Your task to perform on an android device: Open a new window in the chrome app Image 0: 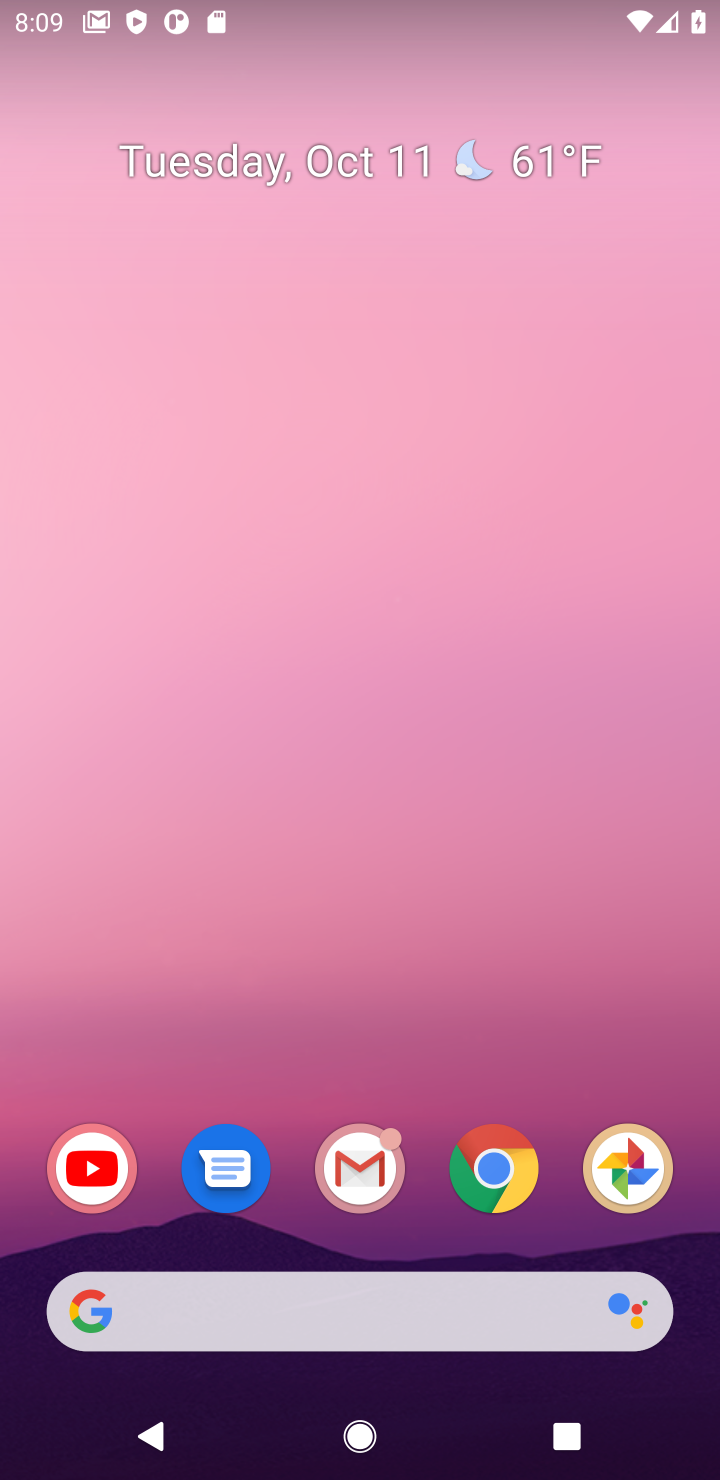
Step 0: drag from (415, 1096) to (476, 599)
Your task to perform on an android device: Open a new window in the chrome app Image 1: 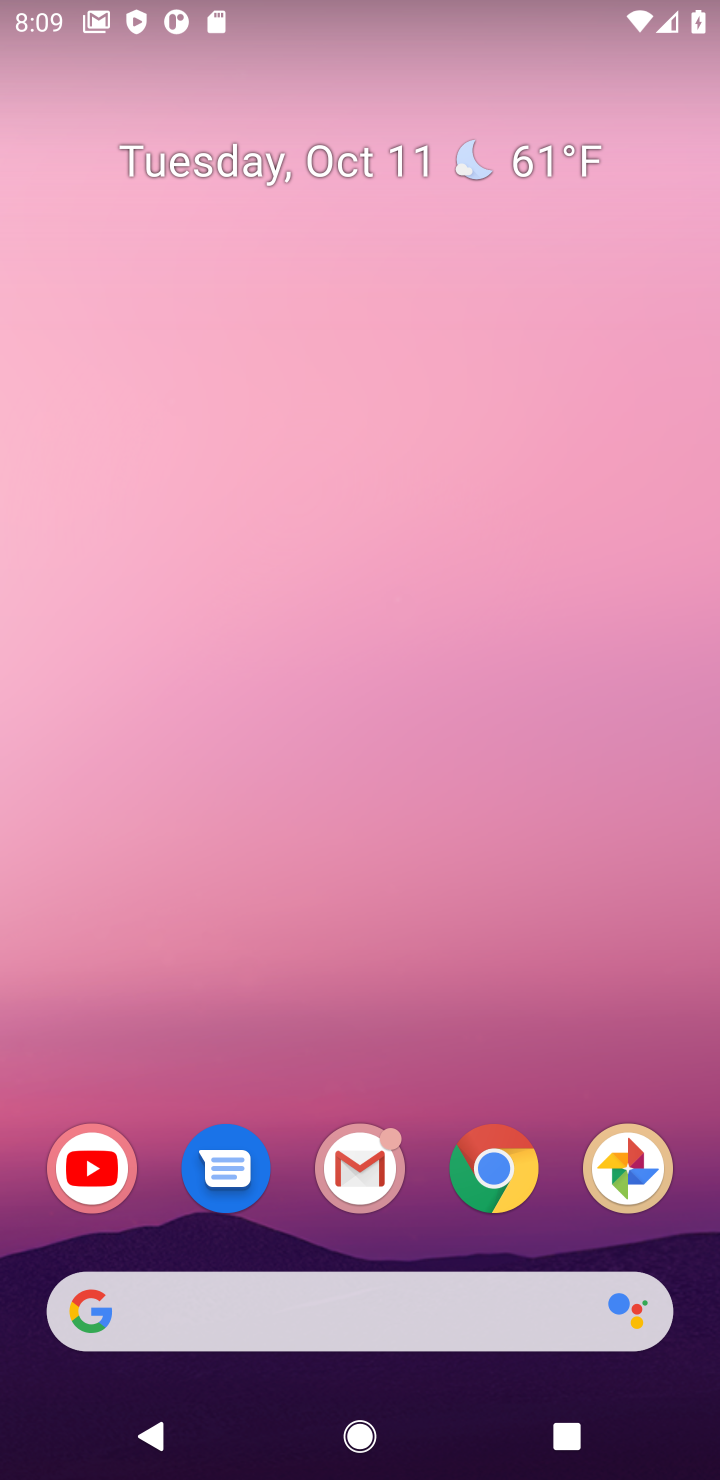
Step 1: click (498, 1171)
Your task to perform on an android device: Open a new window in the chrome app Image 2: 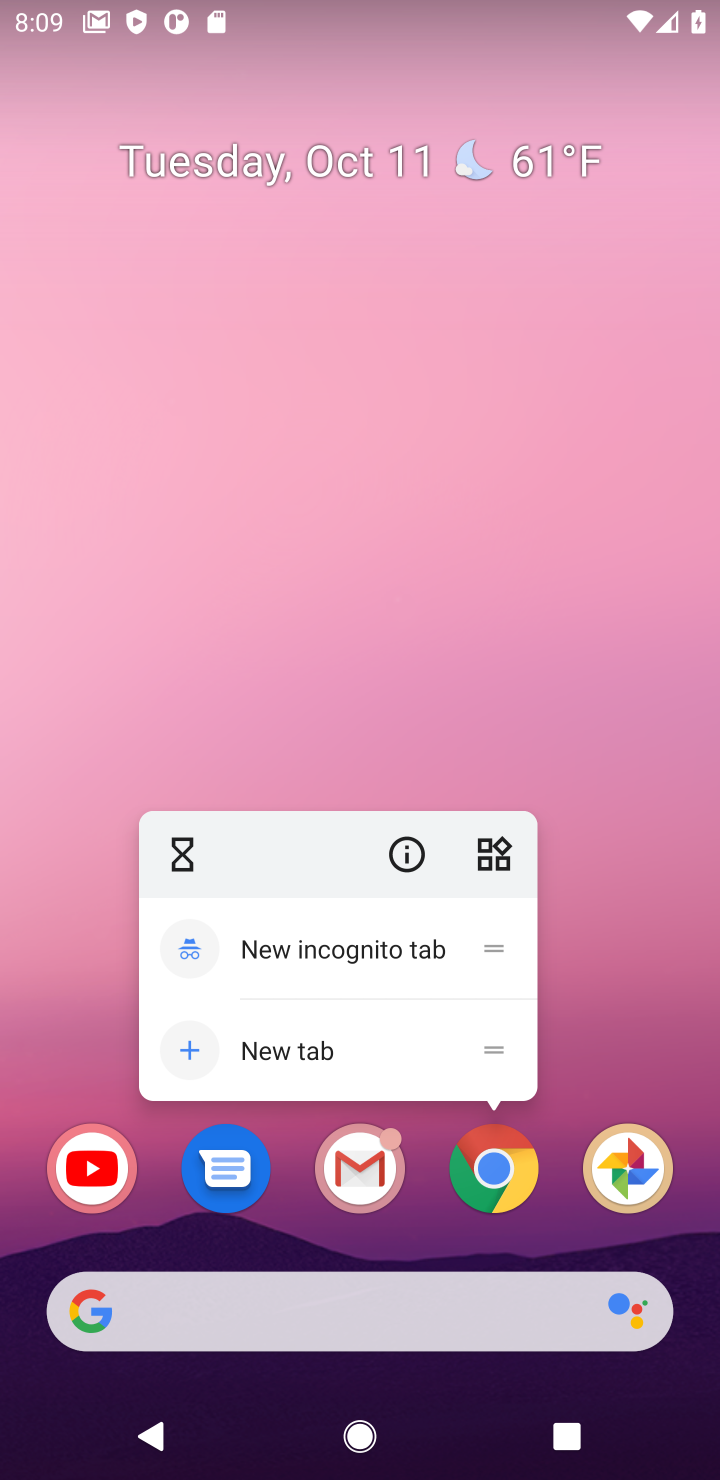
Step 2: click (513, 1192)
Your task to perform on an android device: Open a new window in the chrome app Image 3: 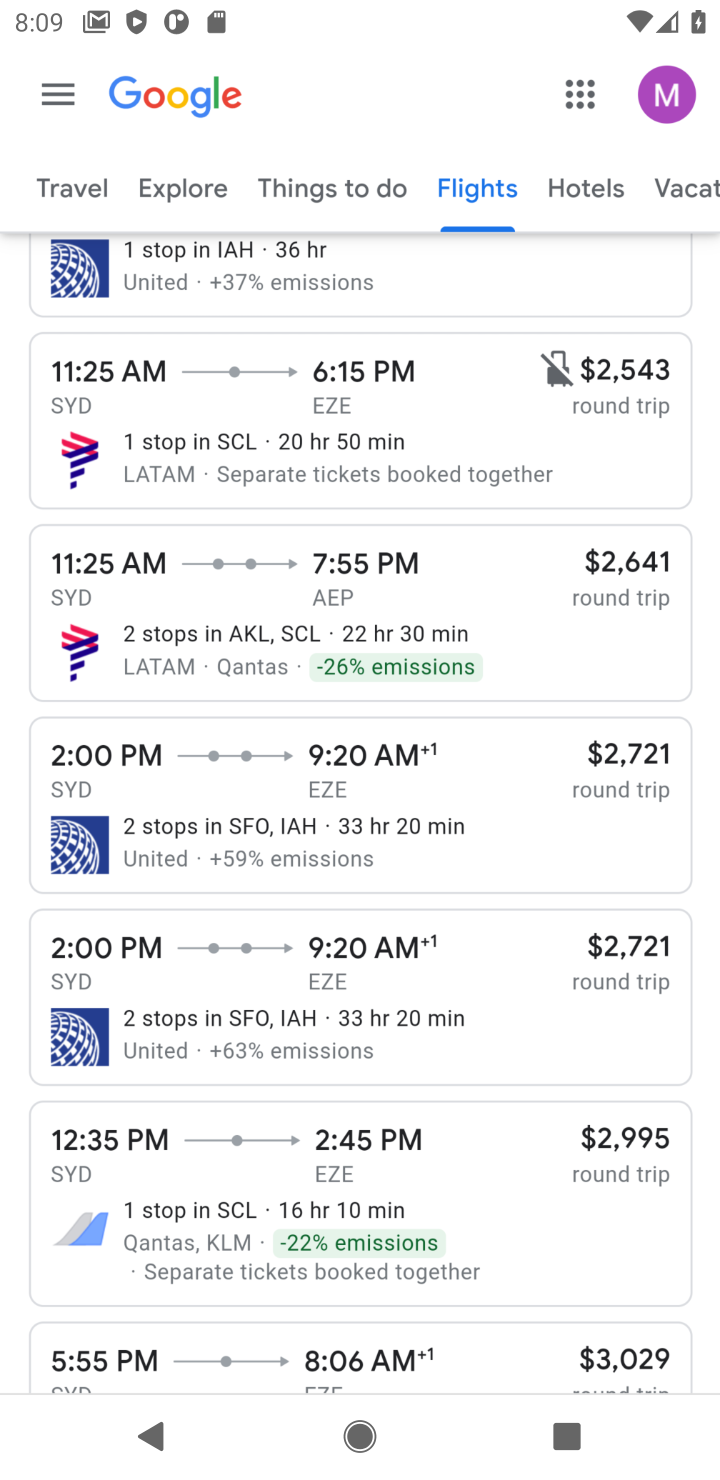
Step 3: press back button
Your task to perform on an android device: Open a new window in the chrome app Image 4: 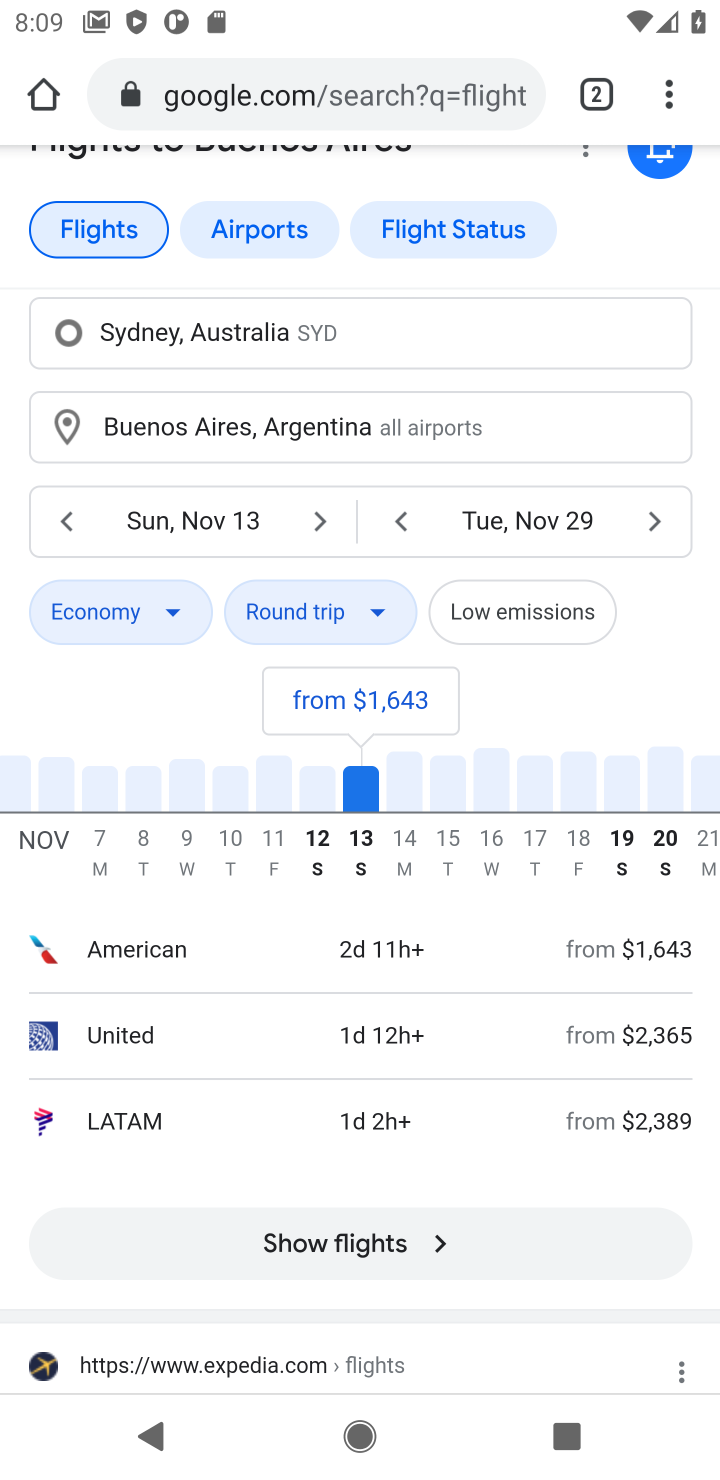
Step 4: click (342, 90)
Your task to perform on an android device: Open a new window in the chrome app Image 5: 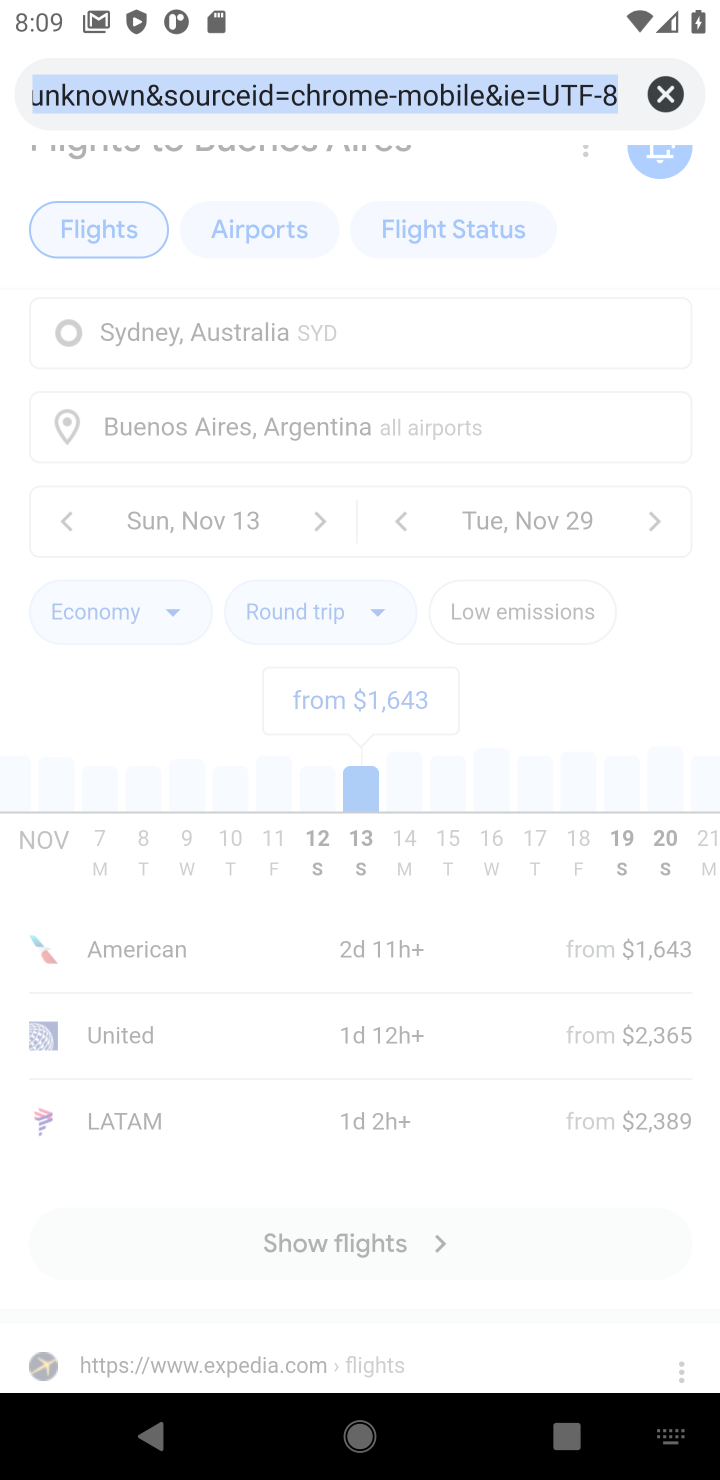
Step 5: click (666, 91)
Your task to perform on an android device: Open a new window in the chrome app Image 6: 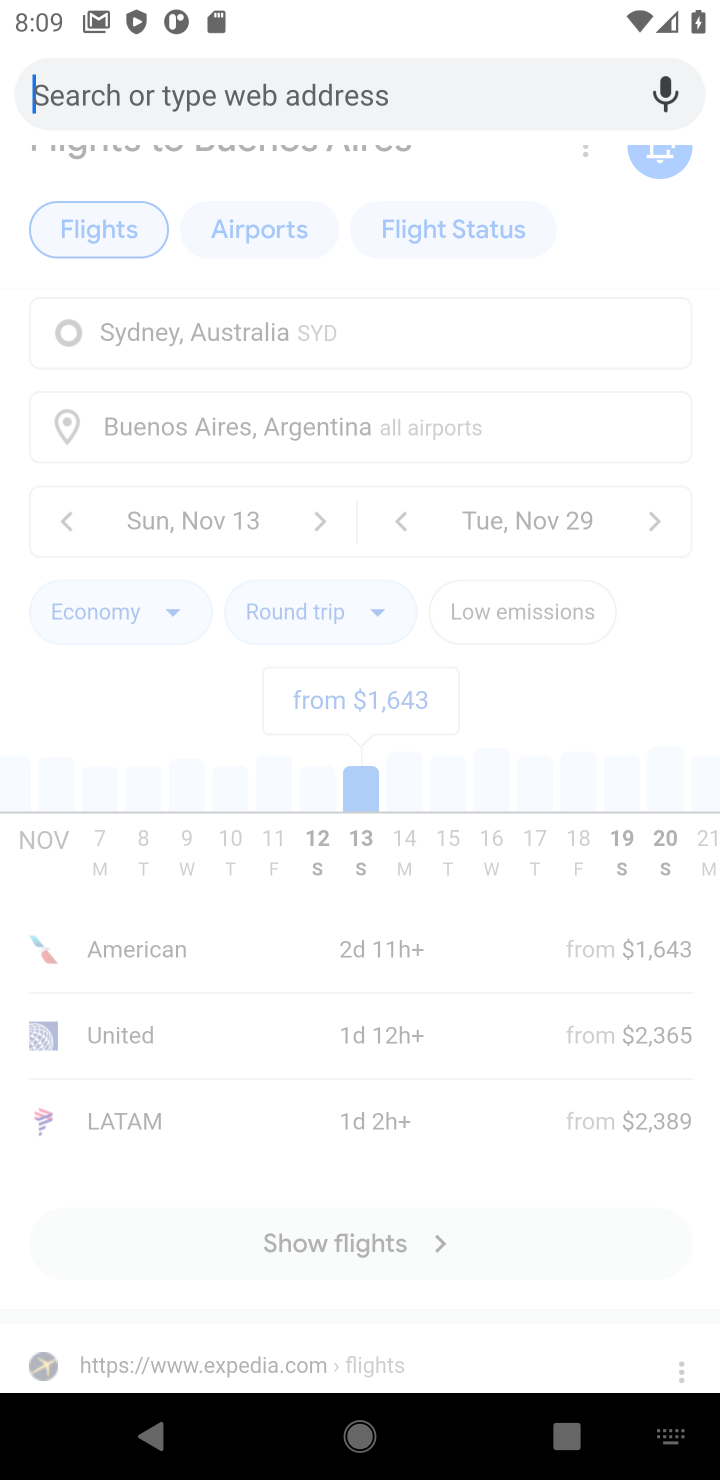
Step 6: press back button
Your task to perform on an android device: Open a new window in the chrome app Image 7: 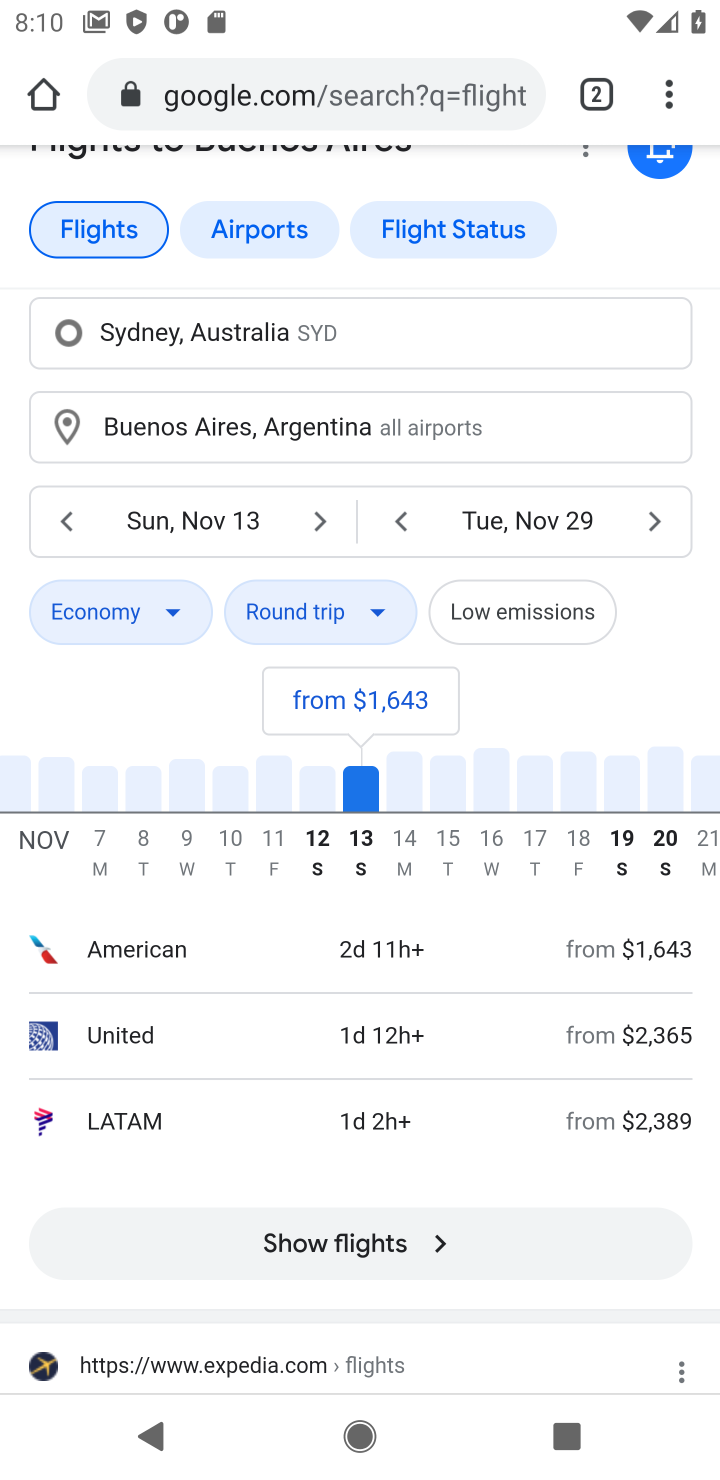
Step 7: click (375, 95)
Your task to perform on an android device: Open a new window in the chrome app Image 8: 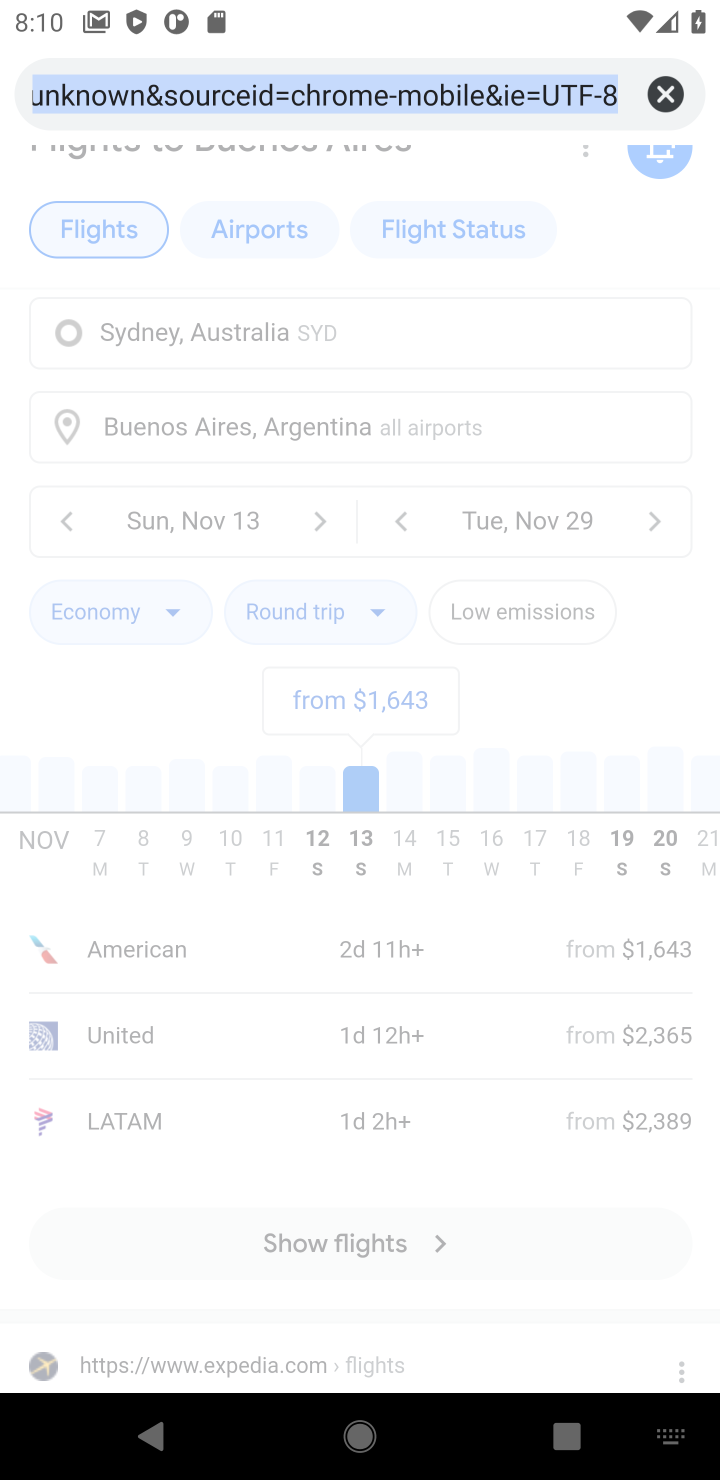
Step 8: click (668, 95)
Your task to perform on an android device: Open a new window in the chrome app Image 9: 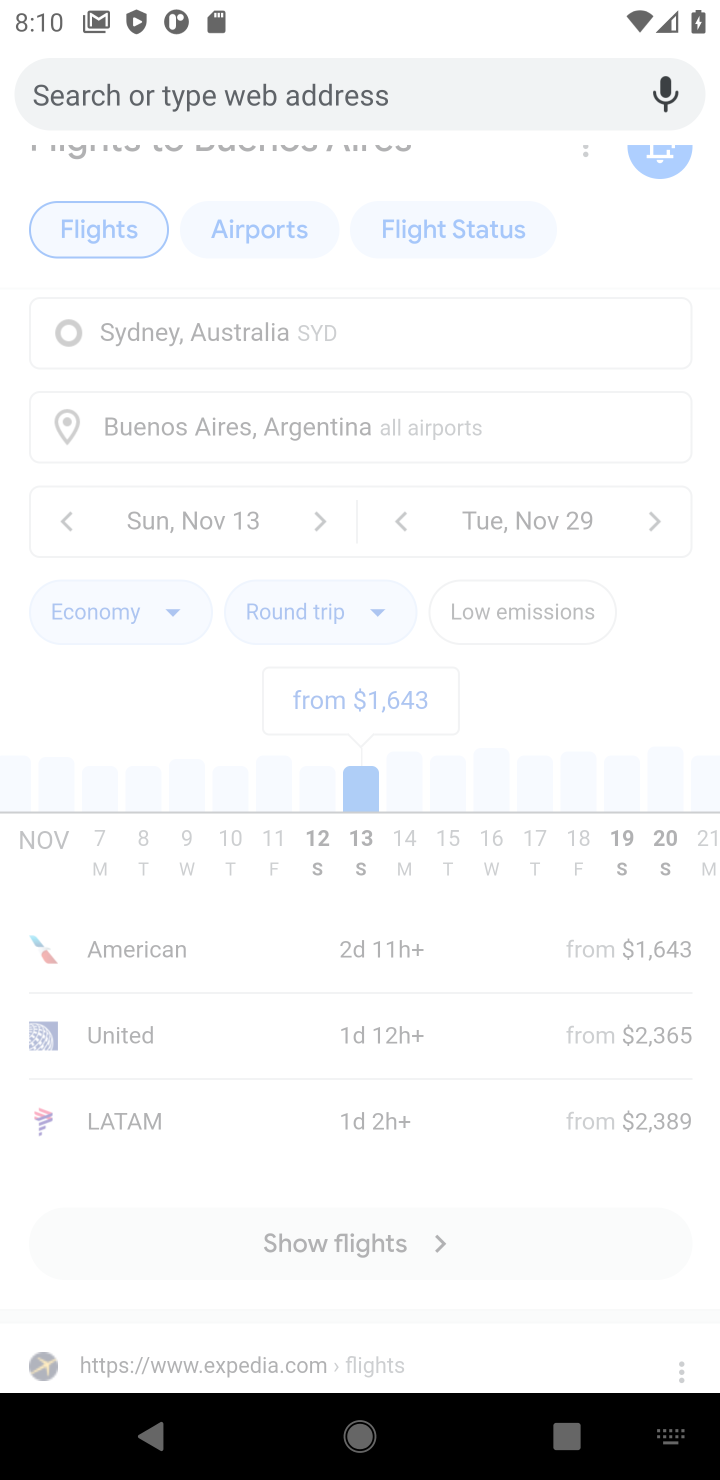
Step 9: type "chrome app"
Your task to perform on an android device: Open a new window in the chrome app Image 10: 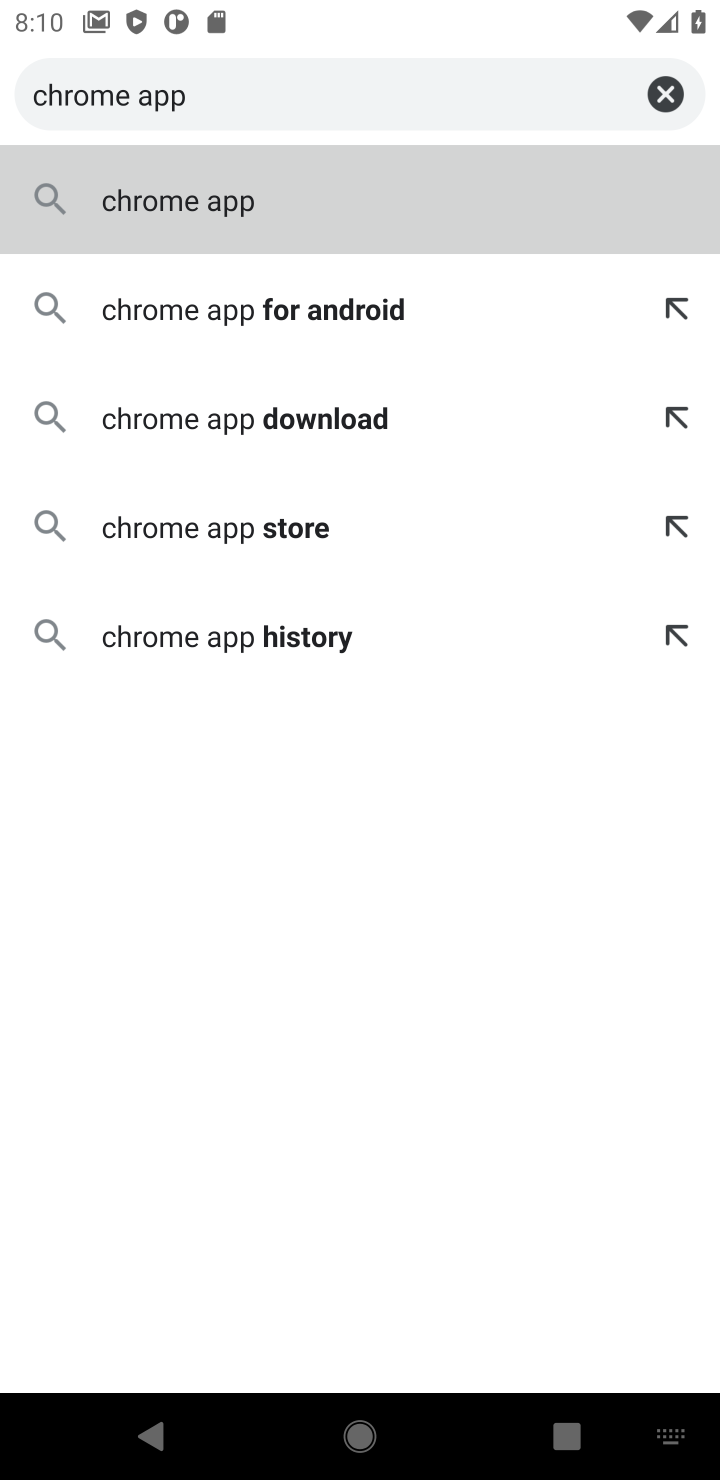
Step 10: type ""
Your task to perform on an android device: Open a new window in the chrome app Image 11: 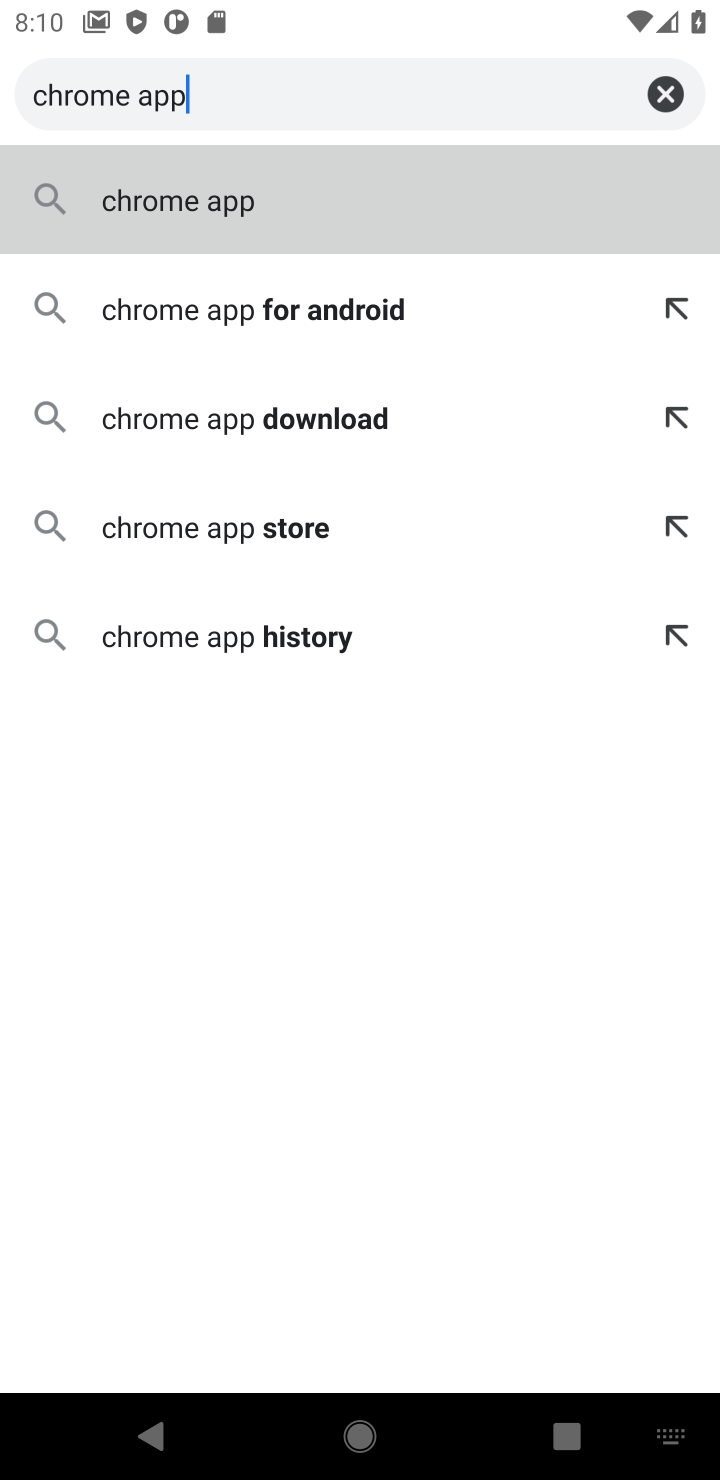
Step 11: drag from (708, 135) to (184, 210)
Your task to perform on an android device: Open a new window in the chrome app Image 12: 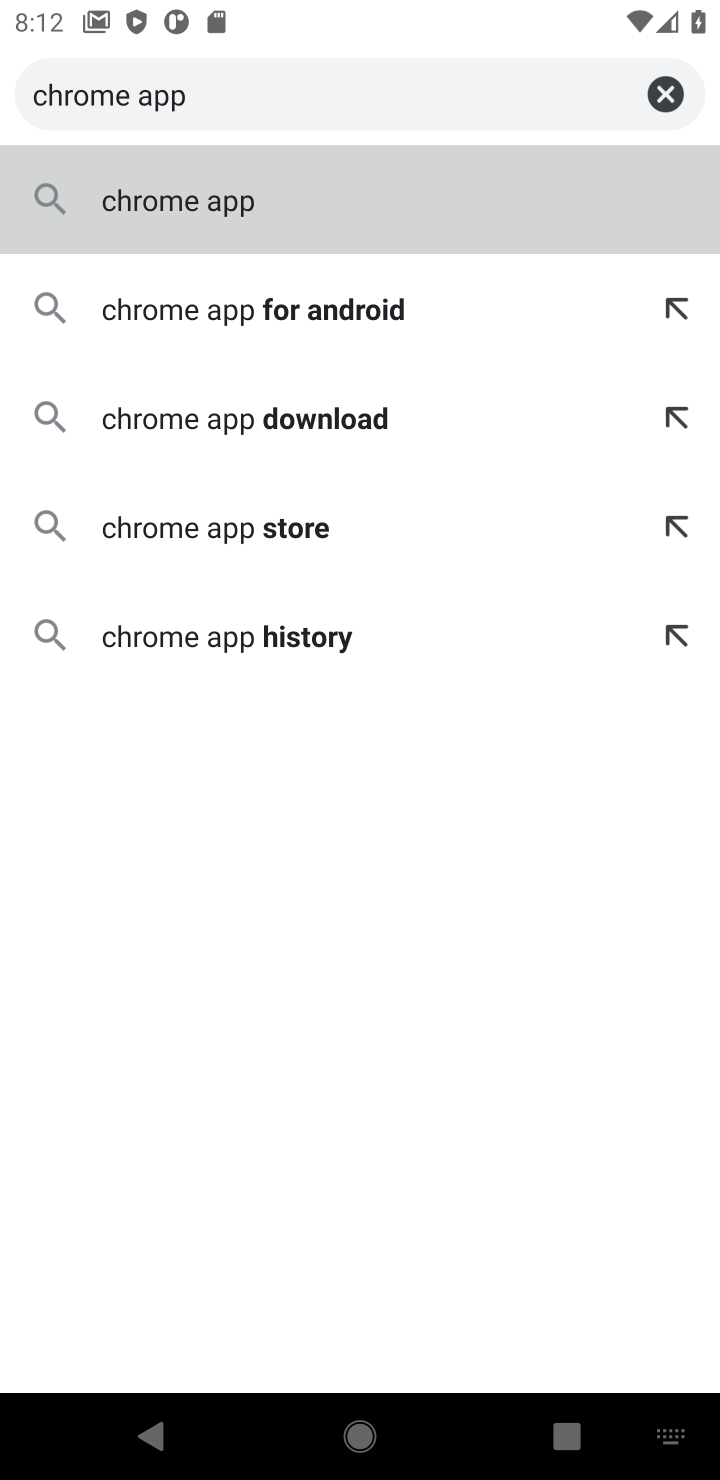
Step 12: click (204, 199)
Your task to perform on an android device: Open a new window in the chrome app Image 13: 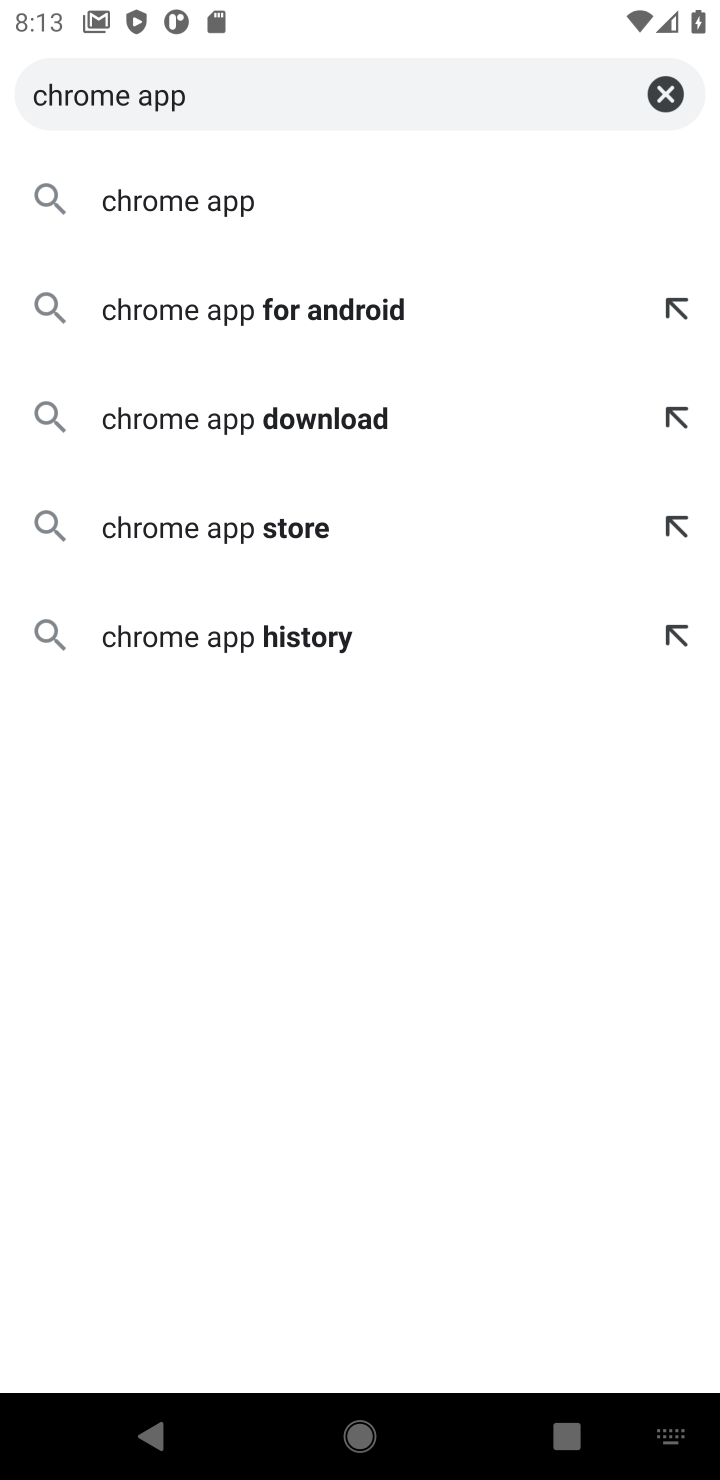
Step 13: click (238, 211)
Your task to perform on an android device: Open a new window in the chrome app Image 14: 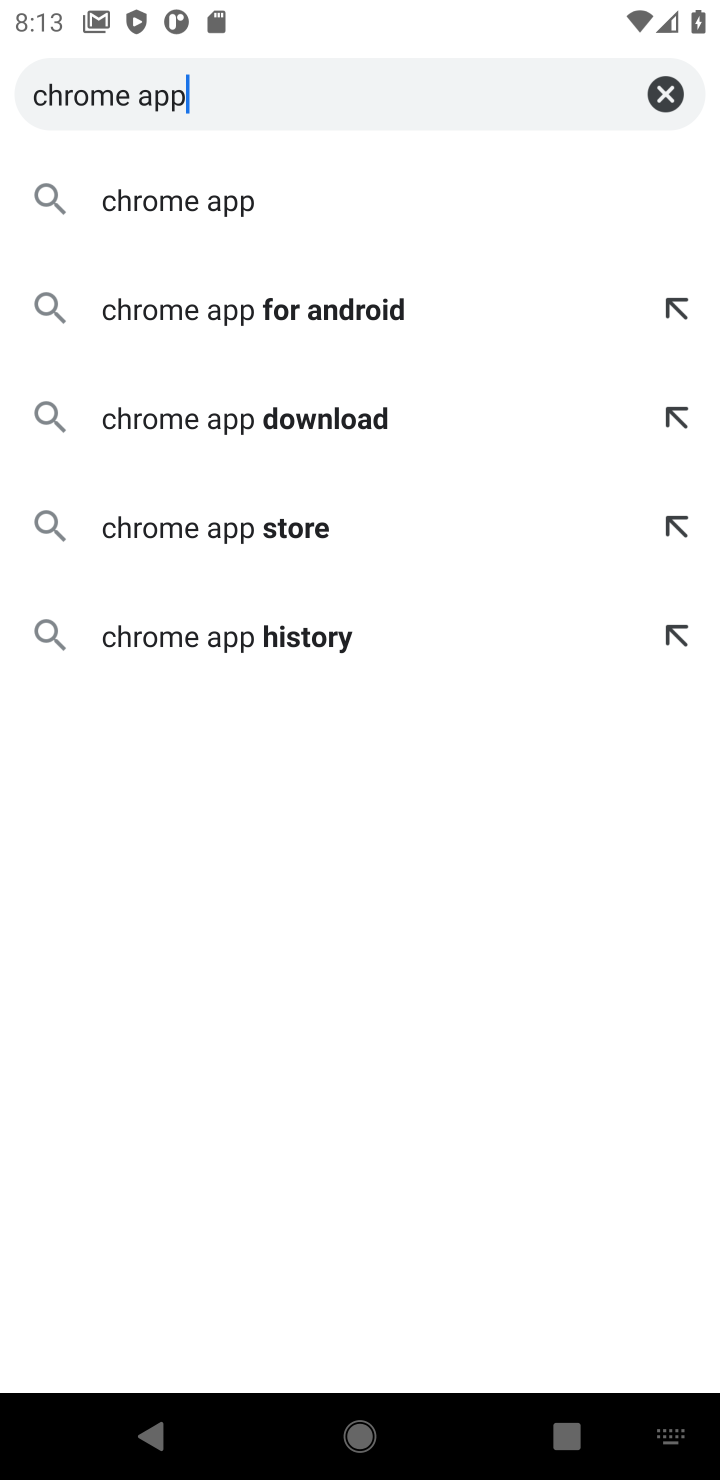
Step 14: click (268, 307)
Your task to perform on an android device: Open a new window in the chrome app Image 15: 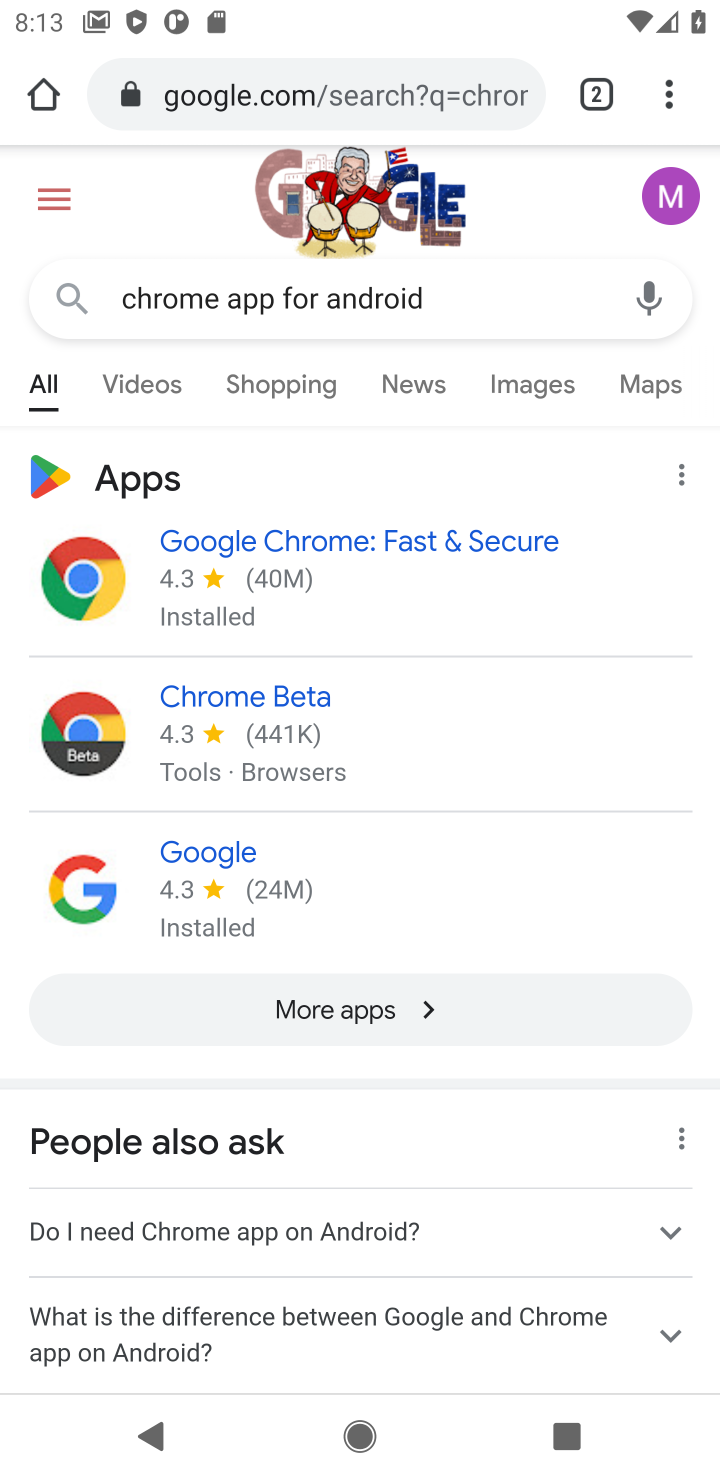
Step 15: click (667, 100)
Your task to perform on an android device: Open a new window in the chrome app Image 16: 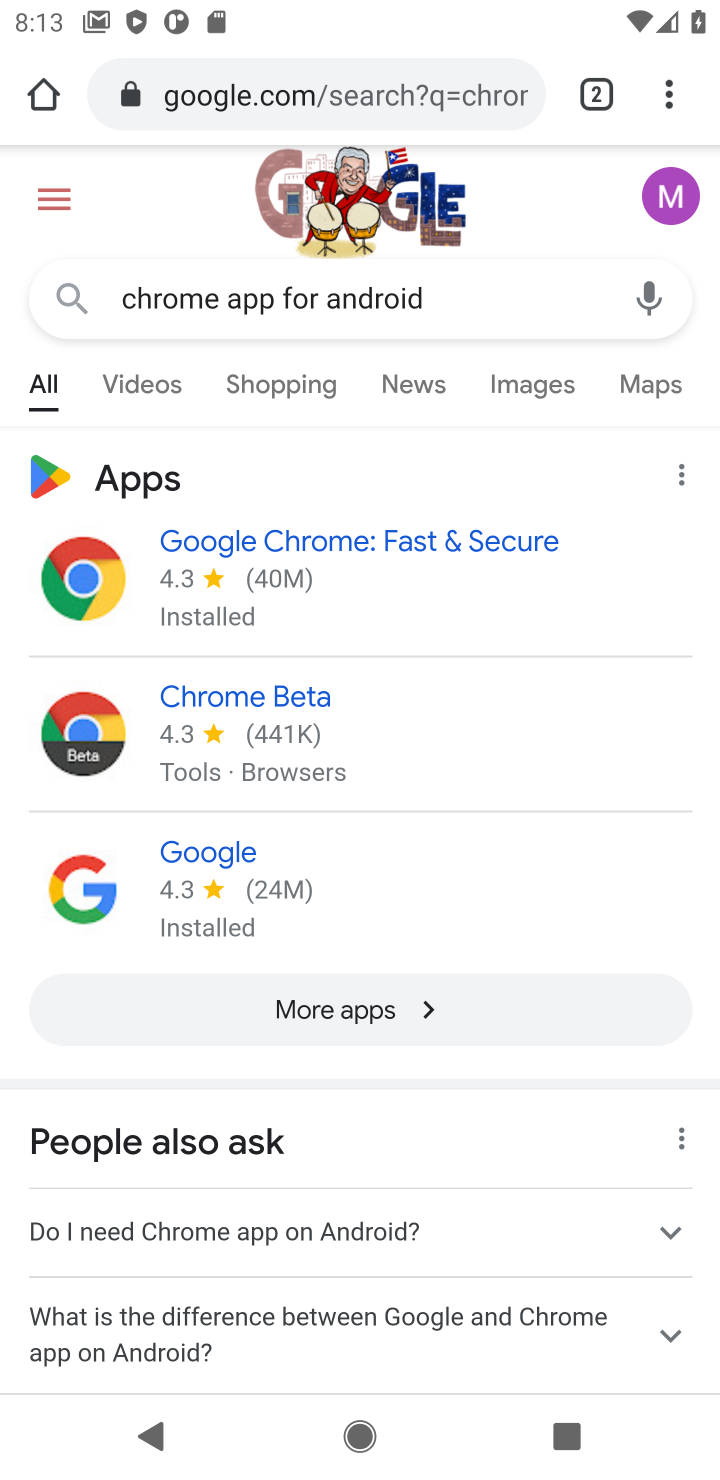
Step 16: click (665, 98)
Your task to perform on an android device: Open a new window in the chrome app Image 17: 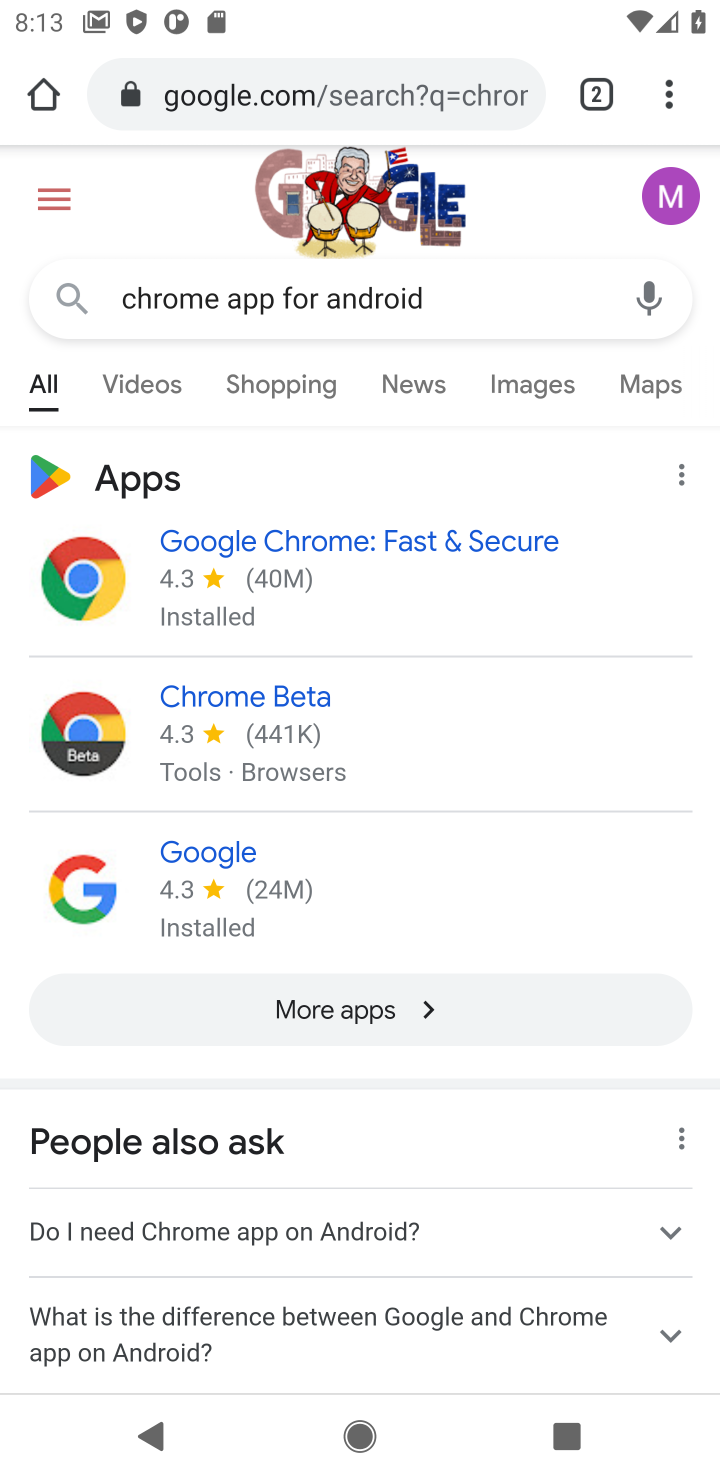
Step 17: click (585, 89)
Your task to perform on an android device: Open a new window in the chrome app Image 18: 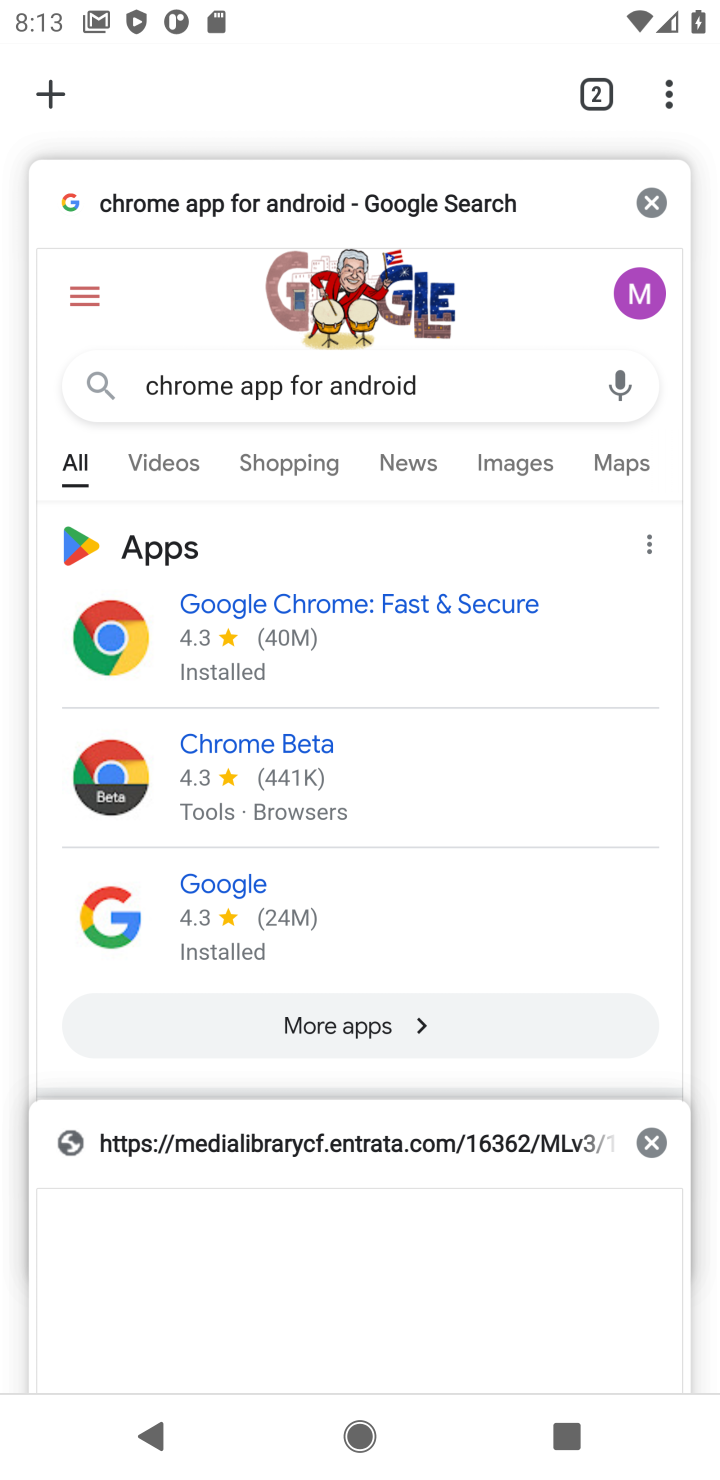
Step 18: click (50, 95)
Your task to perform on an android device: Open a new window in the chrome app Image 19: 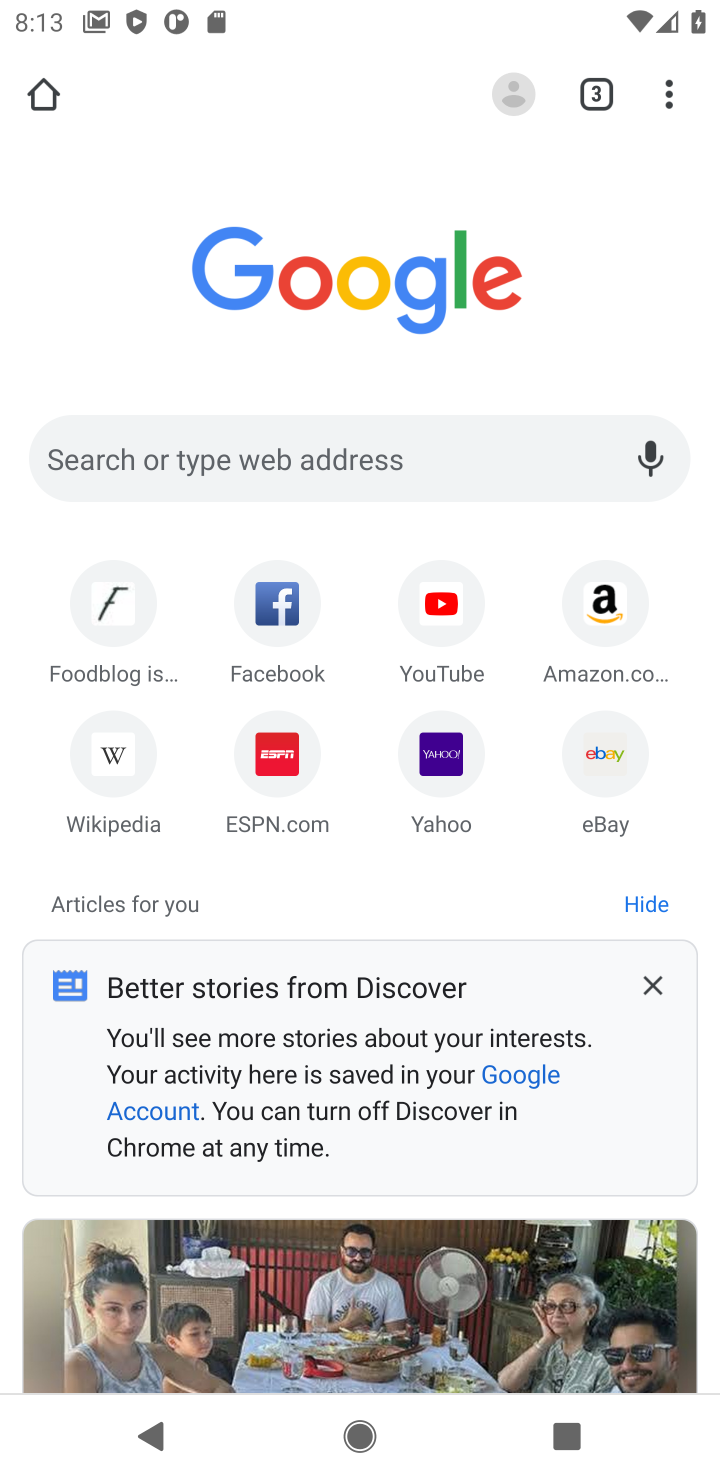
Step 19: click (669, 95)
Your task to perform on an android device: Open a new window in the chrome app Image 20: 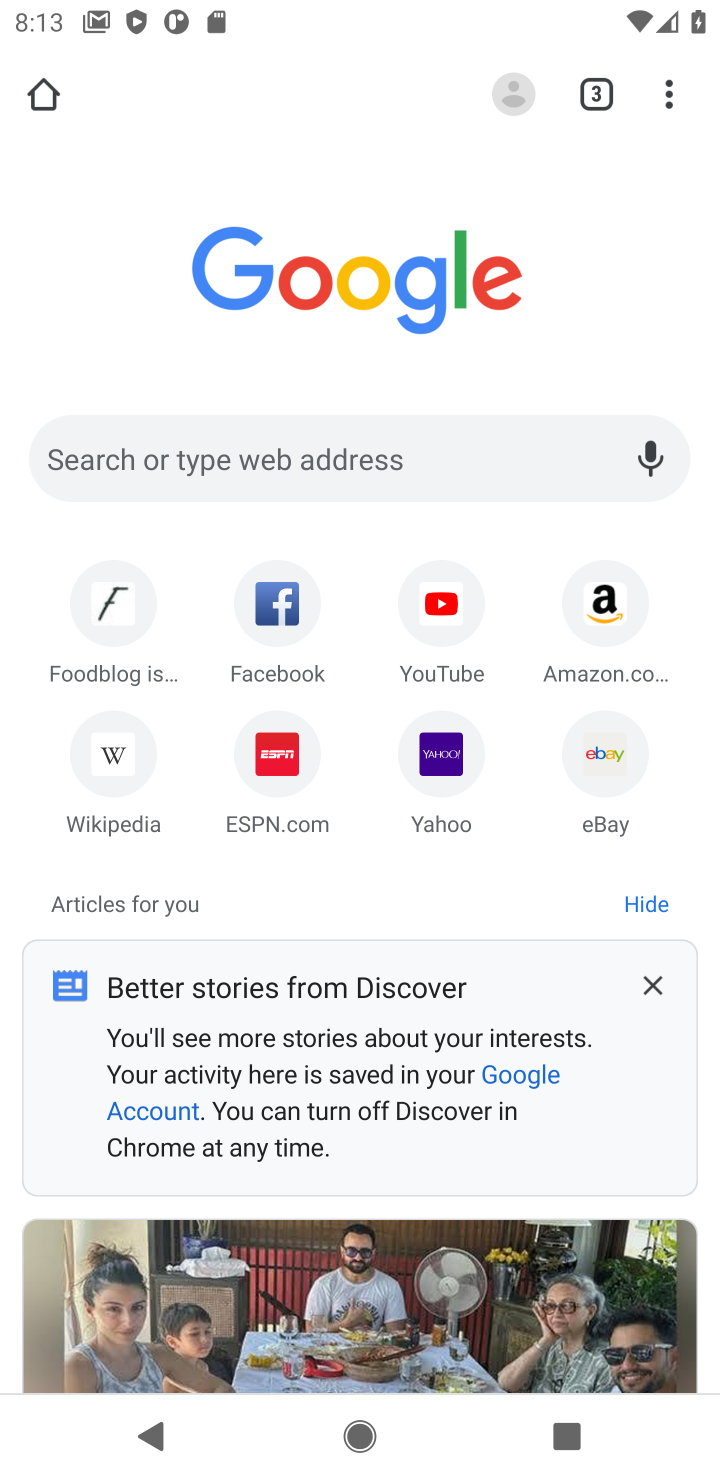
Step 20: task complete